Your task to perform on an android device: open chrome and create a bookmark for the current page Image 0: 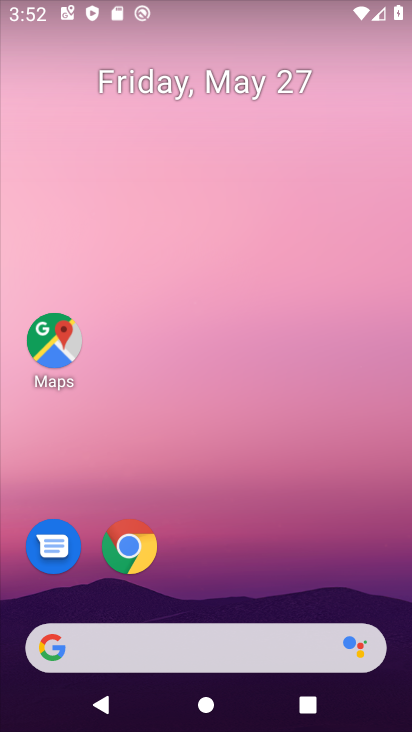
Step 0: press home button
Your task to perform on an android device: open chrome and create a bookmark for the current page Image 1: 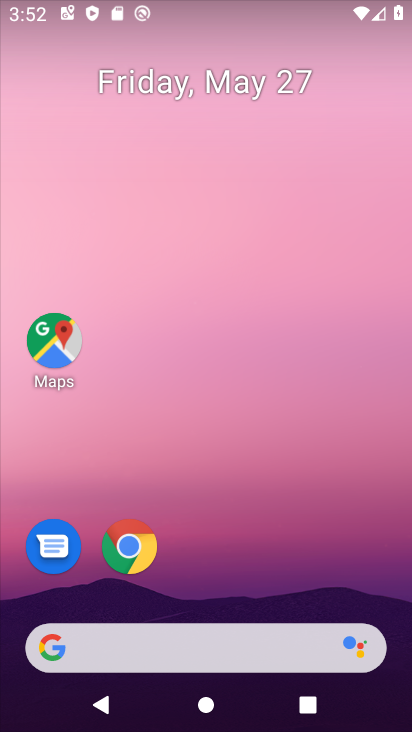
Step 1: drag from (215, 598) to (214, 117)
Your task to perform on an android device: open chrome and create a bookmark for the current page Image 2: 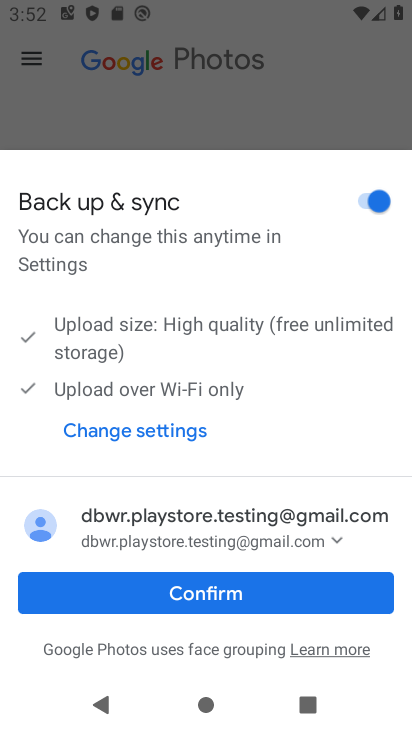
Step 2: press home button
Your task to perform on an android device: open chrome and create a bookmark for the current page Image 3: 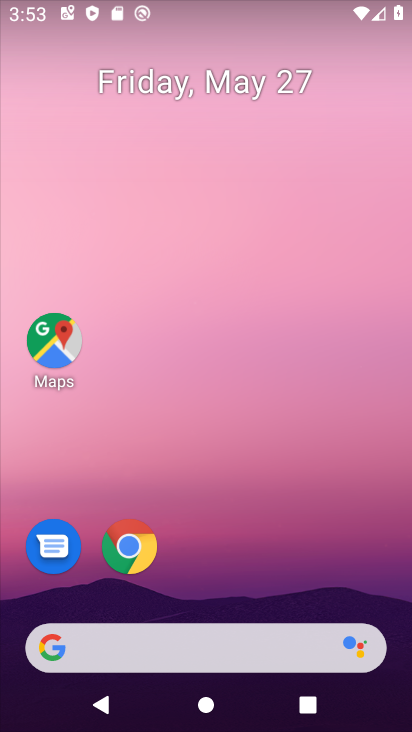
Step 3: click (129, 544)
Your task to perform on an android device: open chrome and create a bookmark for the current page Image 4: 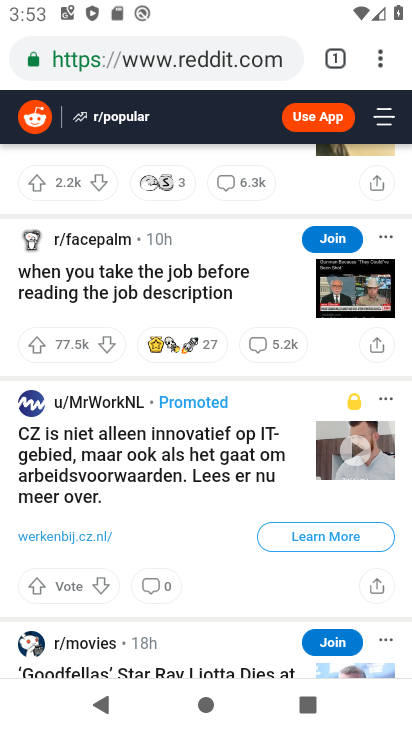
Step 4: click (383, 57)
Your task to perform on an android device: open chrome and create a bookmark for the current page Image 5: 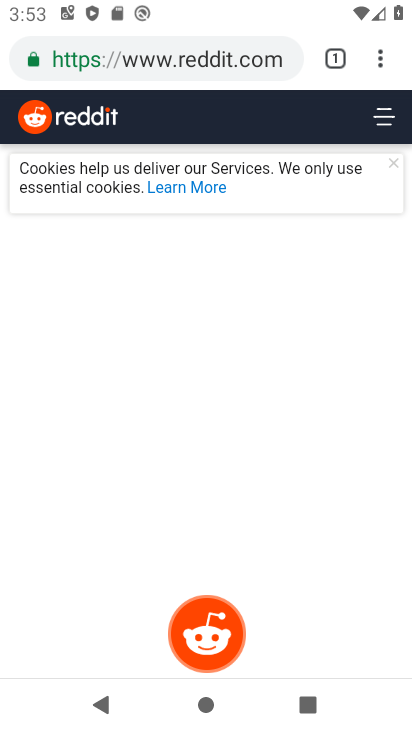
Step 5: click (376, 61)
Your task to perform on an android device: open chrome and create a bookmark for the current page Image 6: 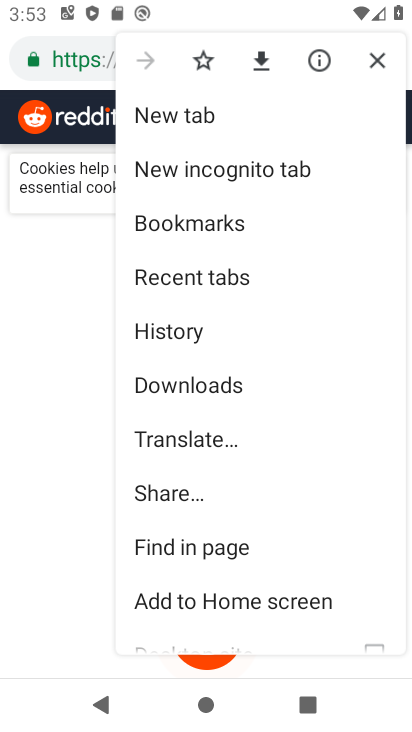
Step 6: click (207, 61)
Your task to perform on an android device: open chrome and create a bookmark for the current page Image 7: 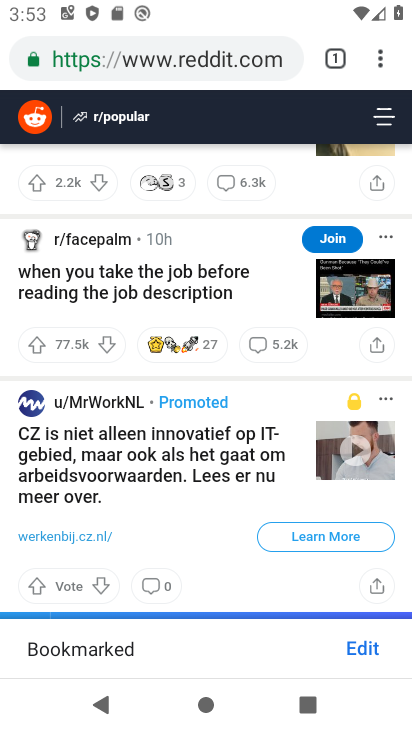
Step 7: task complete